Your task to perform on an android device: turn pop-ups on in chrome Image 0: 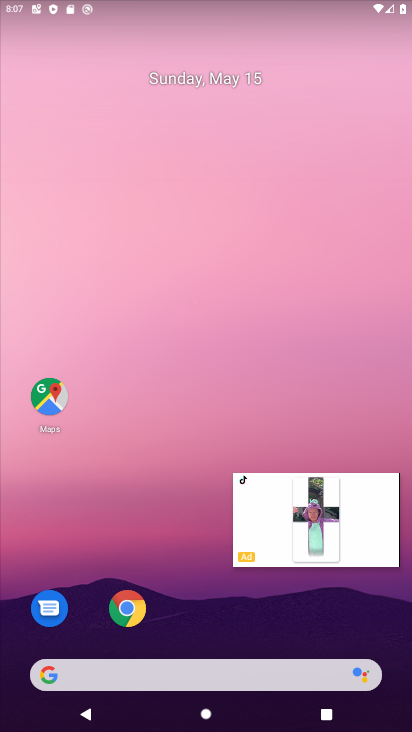
Step 0: press home button
Your task to perform on an android device: turn pop-ups on in chrome Image 1: 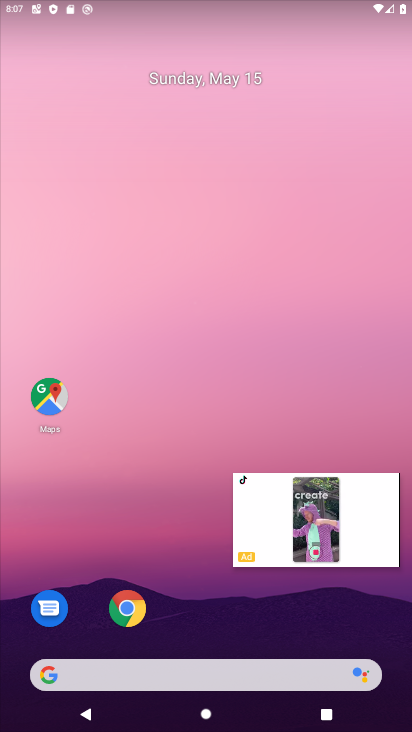
Step 1: press home button
Your task to perform on an android device: turn pop-ups on in chrome Image 2: 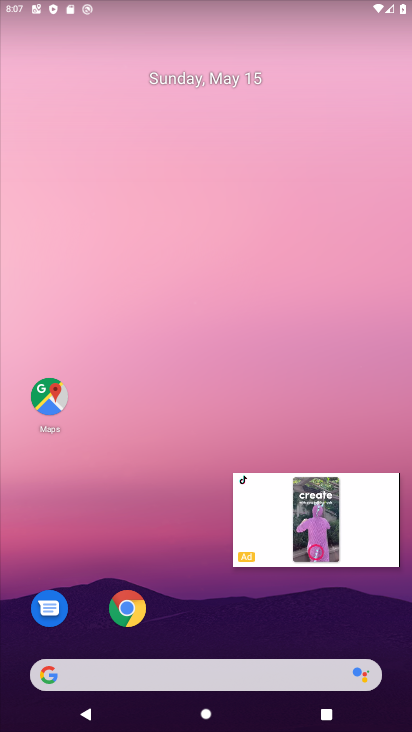
Step 2: press home button
Your task to perform on an android device: turn pop-ups on in chrome Image 3: 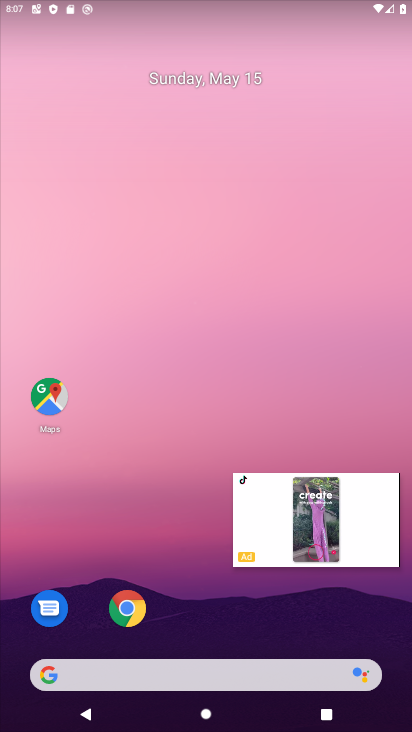
Step 3: press home button
Your task to perform on an android device: turn pop-ups on in chrome Image 4: 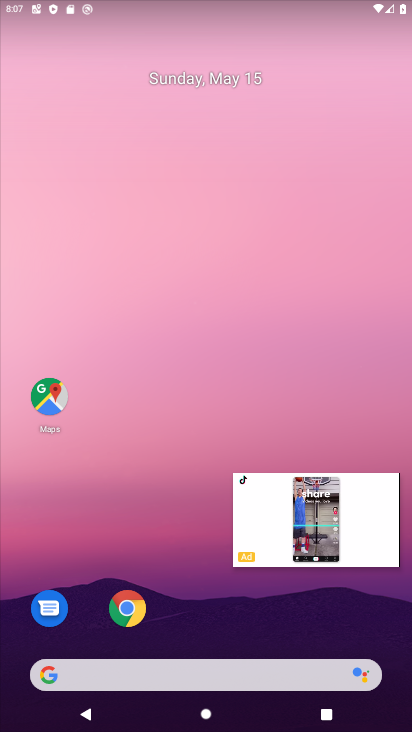
Step 4: drag from (195, 282) to (145, 45)
Your task to perform on an android device: turn pop-ups on in chrome Image 5: 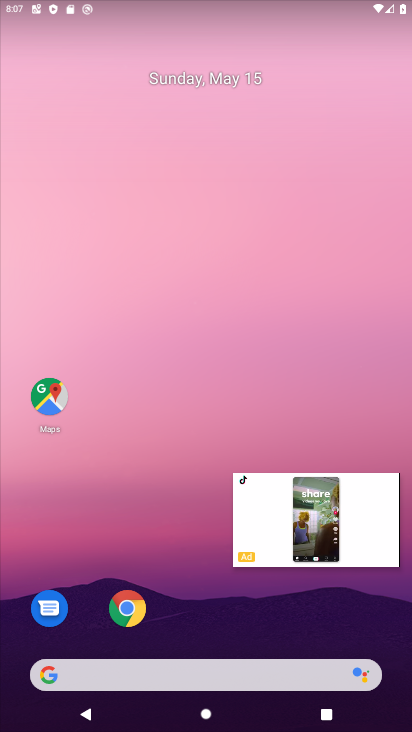
Step 5: drag from (305, 559) to (194, 108)
Your task to perform on an android device: turn pop-ups on in chrome Image 6: 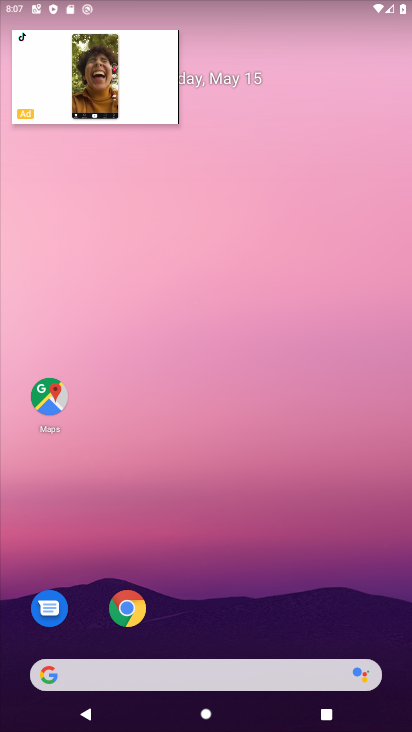
Step 6: click (96, 67)
Your task to perform on an android device: turn pop-ups on in chrome Image 7: 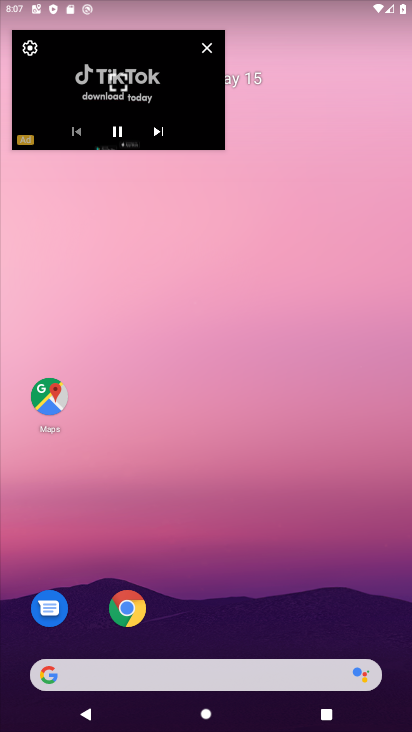
Step 7: click (96, 67)
Your task to perform on an android device: turn pop-ups on in chrome Image 8: 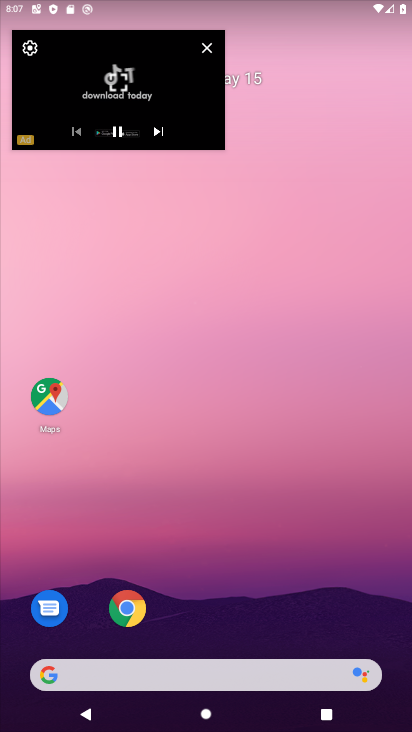
Step 8: click (100, 77)
Your task to perform on an android device: turn pop-ups on in chrome Image 9: 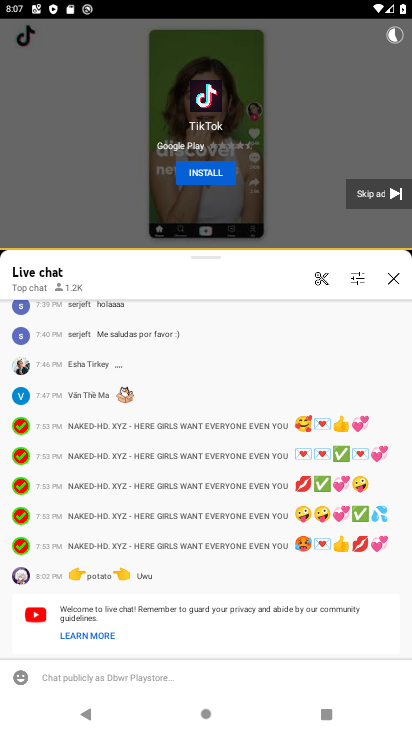
Step 9: click (399, 279)
Your task to perform on an android device: turn pop-ups on in chrome Image 10: 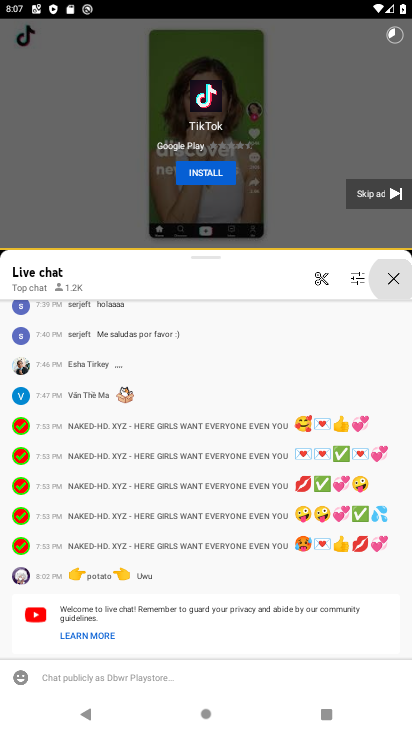
Step 10: press back button
Your task to perform on an android device: turn pop-ups on in chrome Image 11: 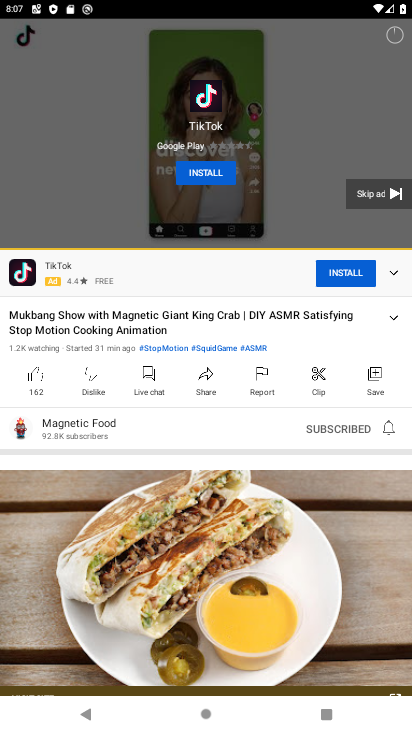
Step 11: press back button
Your task to perform on an android device: turn pop-ups on in chrome Image 12: 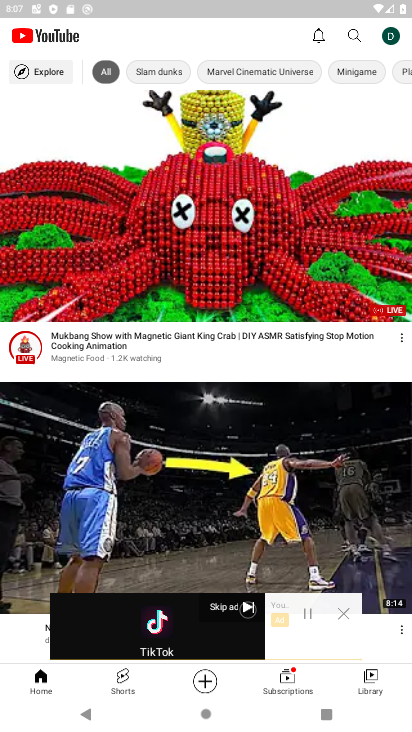
Step 12: press back button
Your task to perform on an android device: turn pop-ups on in chrome Image 13: 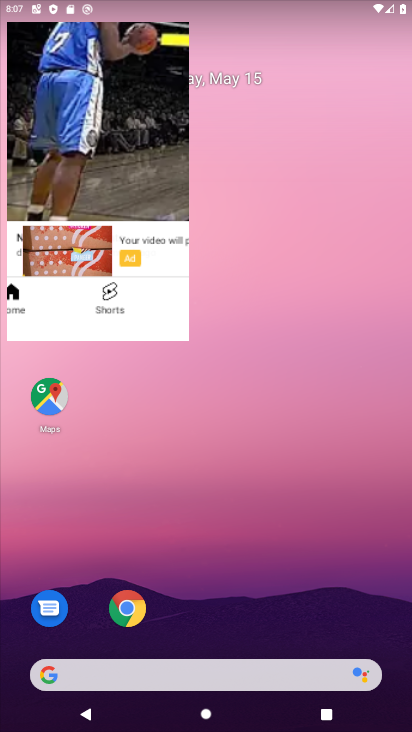
Step 13: press back button
Your task to perform on an android device: turn pop-ups on in chrome Image 14: 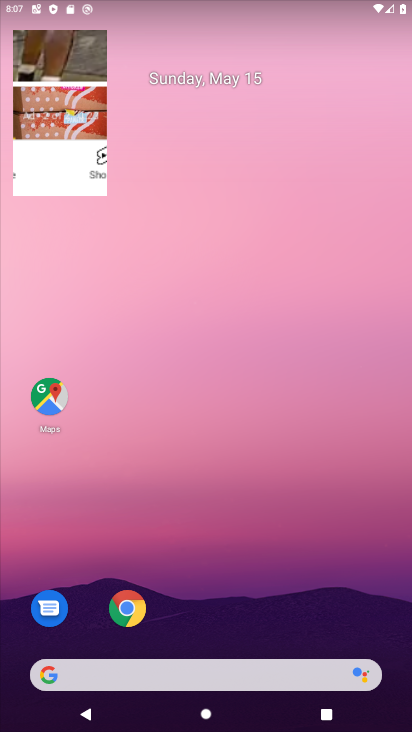
Step 14: press home button
Your task to perform on an android device: turn pop-ups on in chrome Image 15: 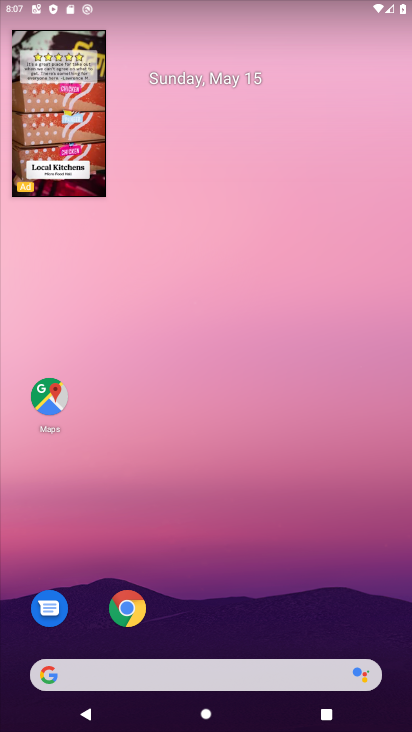
Step 15: drag from (256, 563) to (112, 35)
Your task to perform on an android device: turn pop-ups on in chrome Image 16: 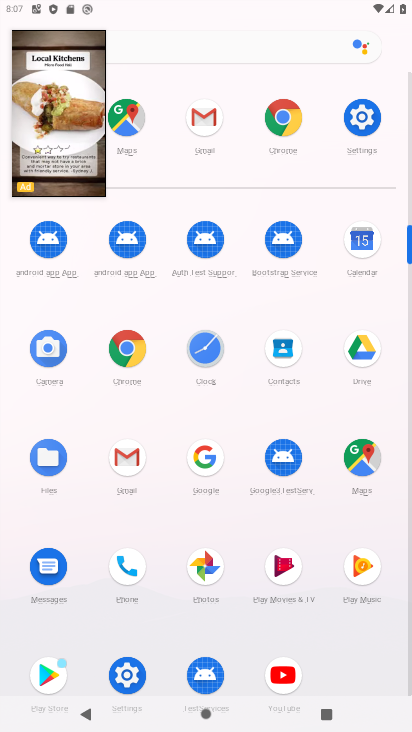
Step 16: click (282, 126)
Your task to perform on an android device: turn pop-ups on in chrome Image 17: 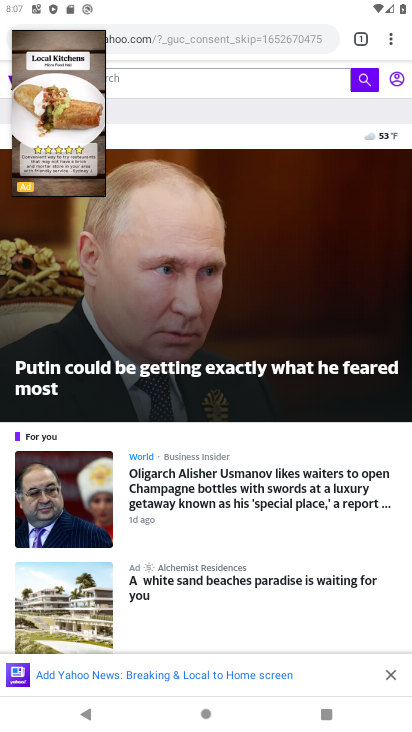
Step 17: drag from (393, 46) to (250, 476)
Your task to perform on an android device: turn pop-ups on in chrome Image 18: 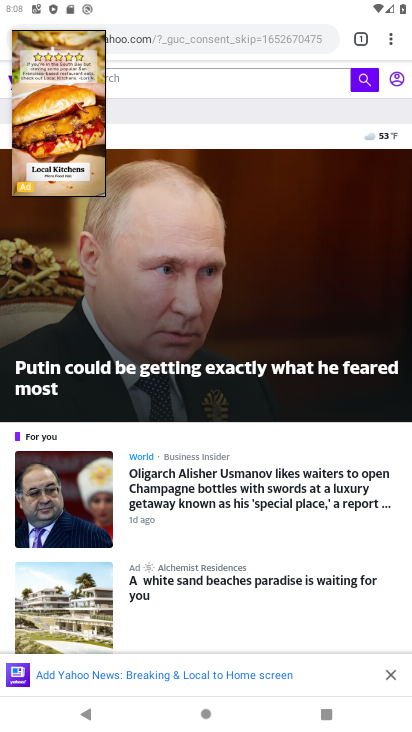
Step 18: click (250, 475)
Your task to perform on an android device: turn pop-ups on in chrome Image 19: 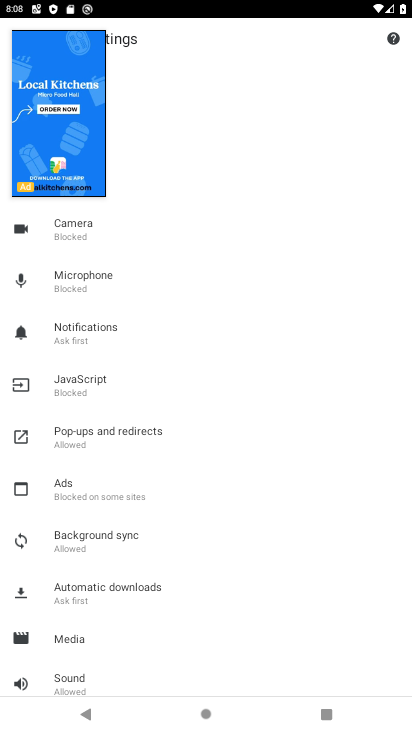
Step 19: click (81, 425)
Your task to perform on an android device: turn pop-ups on in chrome Image 20: 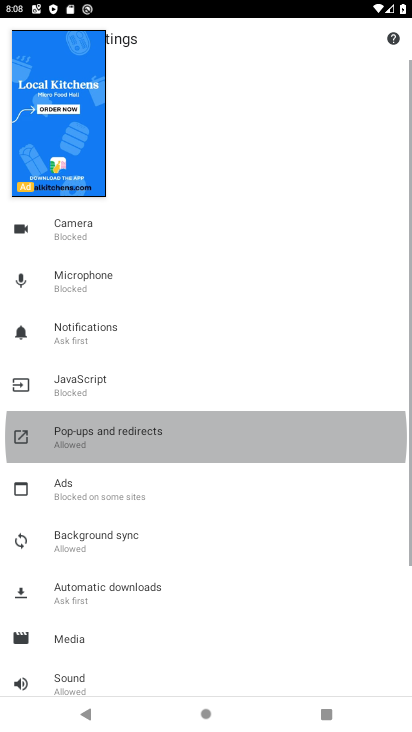
Step 20: click (82, 424)
Your task to perform on an android device: turn pop-ups on in chrome Image 21: 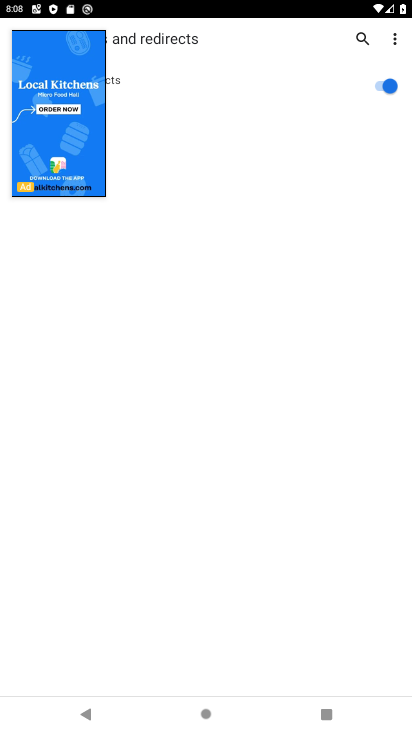
Step 21: task complete